Your task to perform on an android device: turn off javascript in the chrome app Image 0: 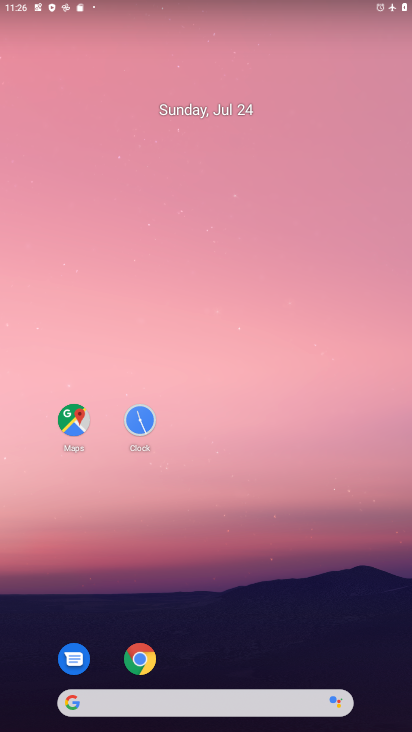
Step 0: click (147, 660)
Your task to perform on an android device: turn off javascript in the chrome app Image 1: 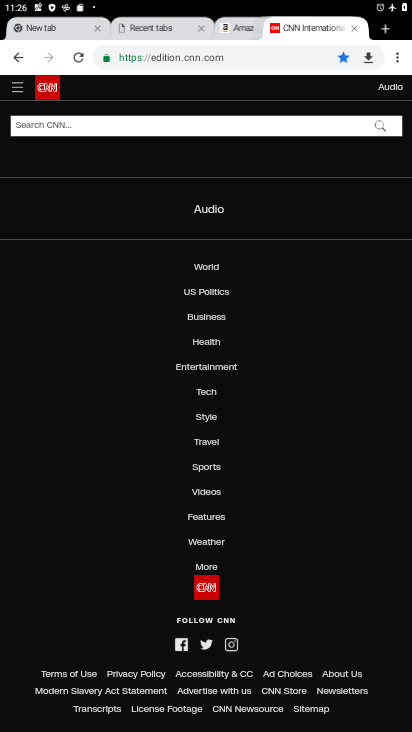
Step 1: click (394, 58)
Your task to perform on an android device: turn off javascript in the chrome app Image 2: 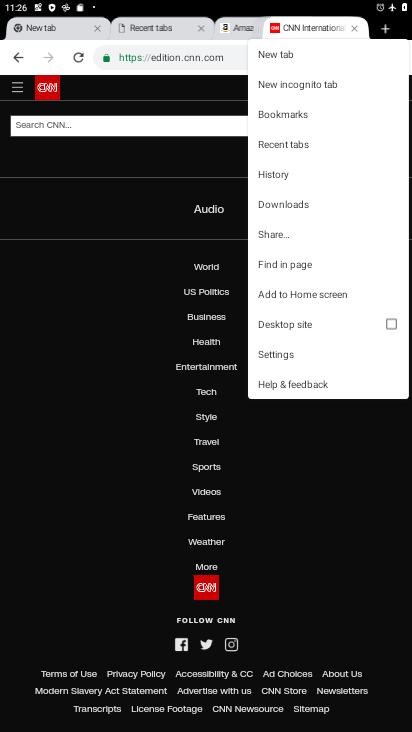
Step 2: click (263, 357)
Your task to perform on an android device: turn off javascript in the chrome app Image 3: 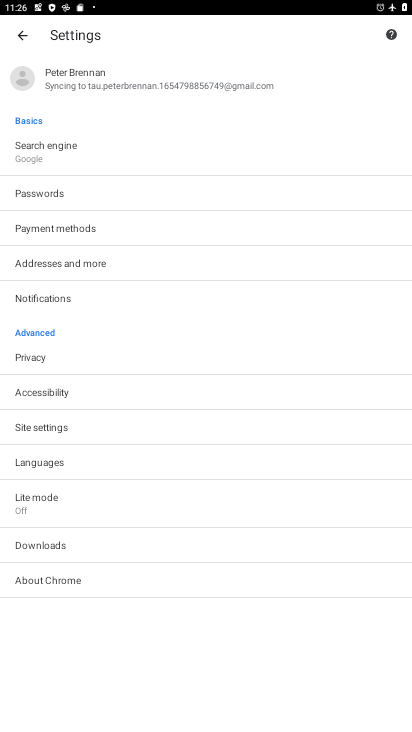
Step 3: click (54, 424)
Your task to perform on an android device: turn off javascript in the chrome app Image 4: 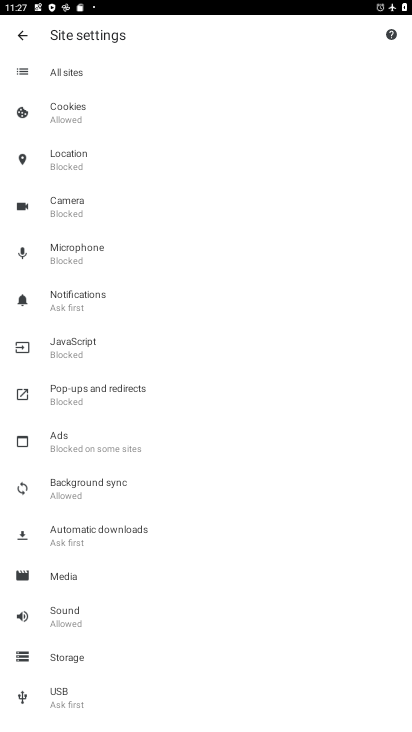
Step 4: click (63, 336)
Your task to perform on an android device: turn off javascript in the chrome app Image 5: 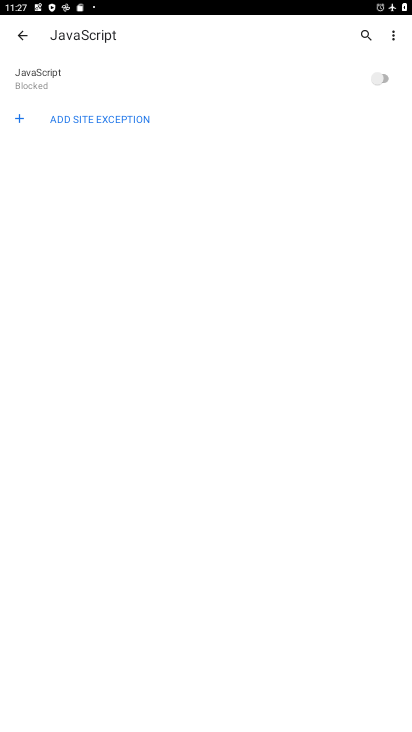
Step 5: task complete